Your task to perform on an android device: open chrome and create a bookmark for the current page Image 0: 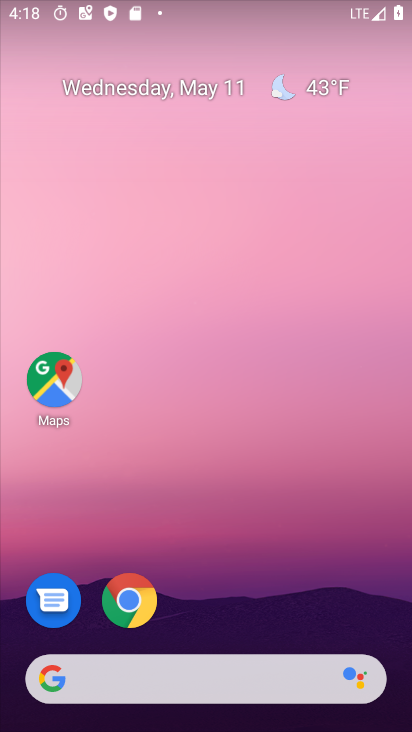
Step 0: click (128, 606)
Your task to perform on an android device: open chrome and create a bookmark for the current page Image 1: 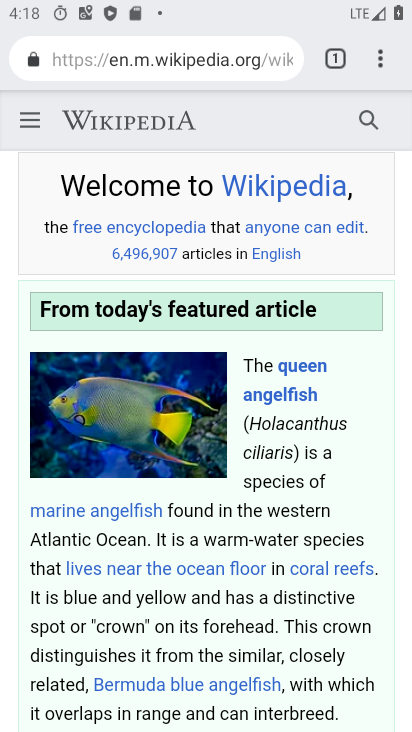
Step 1: task complete